Your task to perform on an android device: turn off airplane mode Image 0: 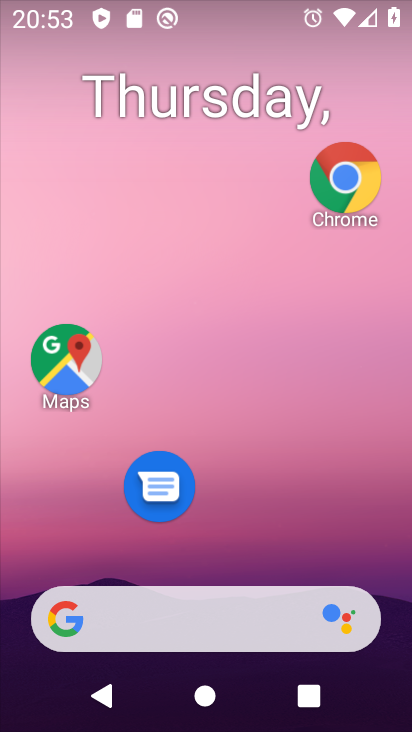
Step 0: drag from (253, 591) to (218, 70)
Your task to perform on an android device: turn off airplane mode Image 1: 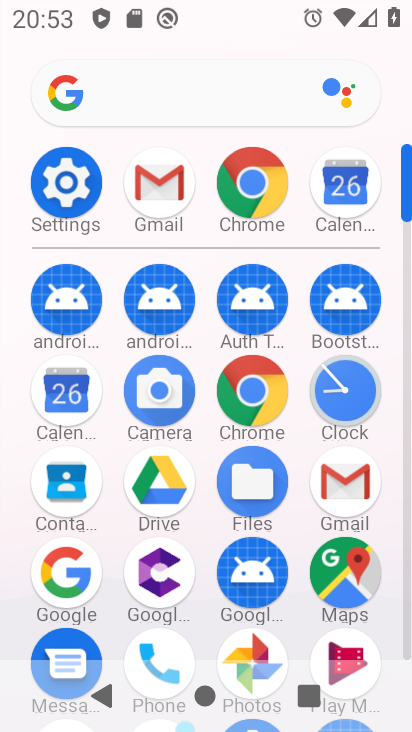
Step 1: click (70, 196)
Your task to perform on an android device: turn off airplane mode Image 2: 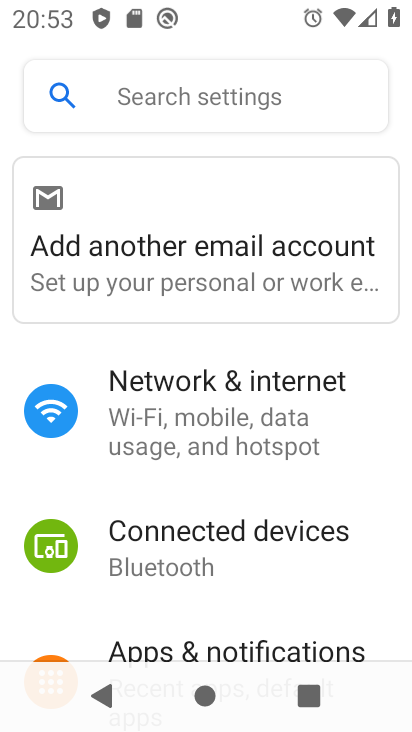
Step 2: click (127, 428)
Your task to perform on an android device: turn off airplane mode Image 3: 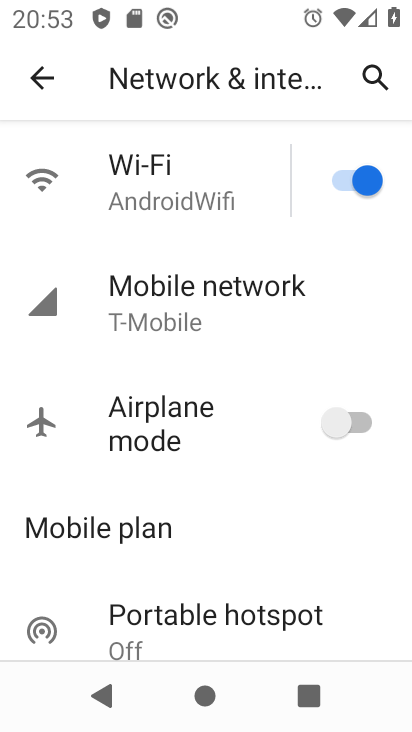
Step 3: task complete